Your task to perform on an android device: What's the weather today? Image 0: 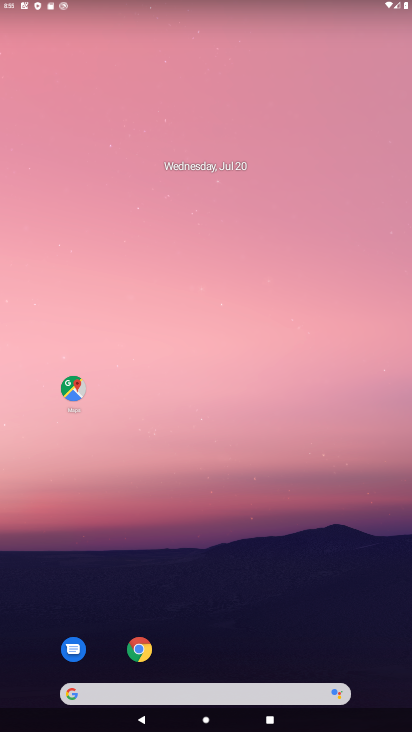
Step 0: drag from (248, 662) to (270, 163)
Your task to perform on an android device: What's the weather today? Image 1: 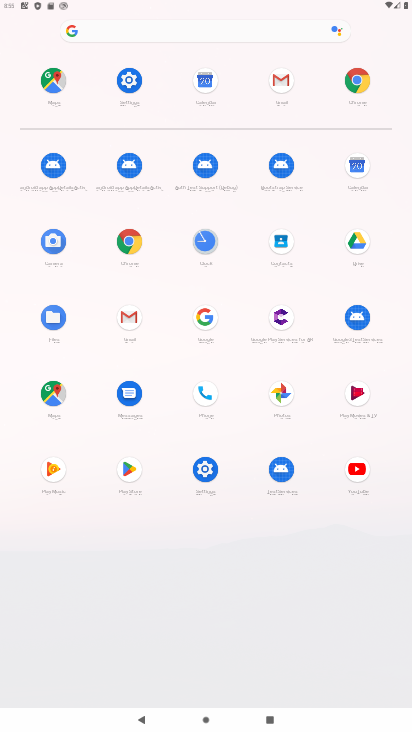
Step 1: click (138, 23)
Your task to perform on an android device: What's the weather today? Image 2: 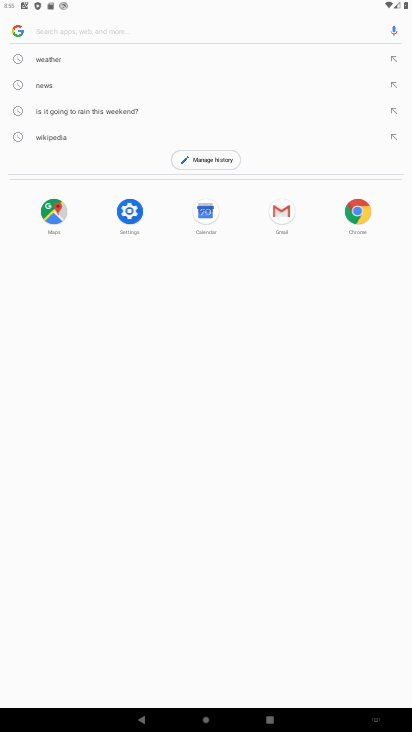
Step 2: type "weather"
Your task to perform on an android device: What's the weather today? Image 3: 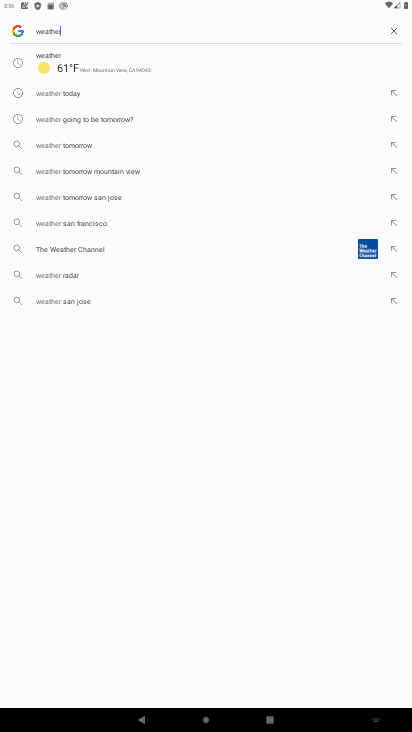
Step 3: click (191, 72)
Your task to perform on an android device: What's the weather today? Image 4: 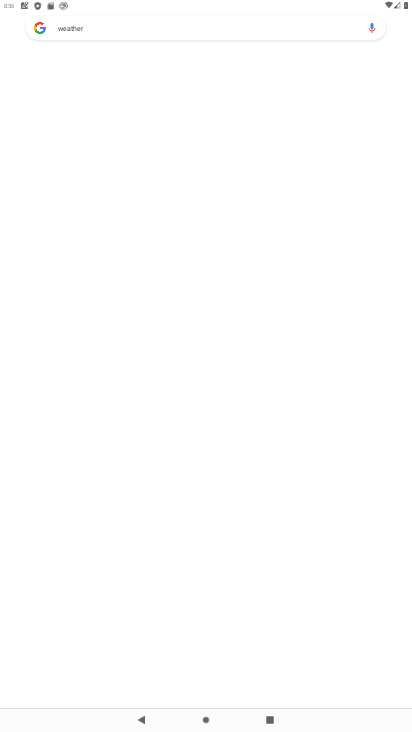
Step 4: task complete